Your task to perform on an android device: show emergency info Image 0: 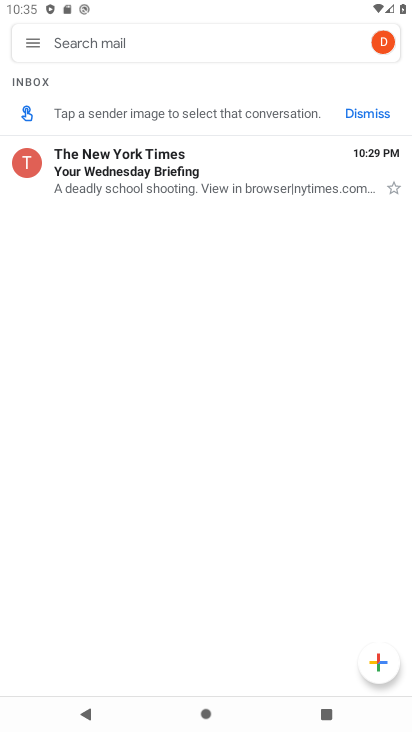
Step 0: press home button
Your task to perform on an android device: show emergency info Image 1: 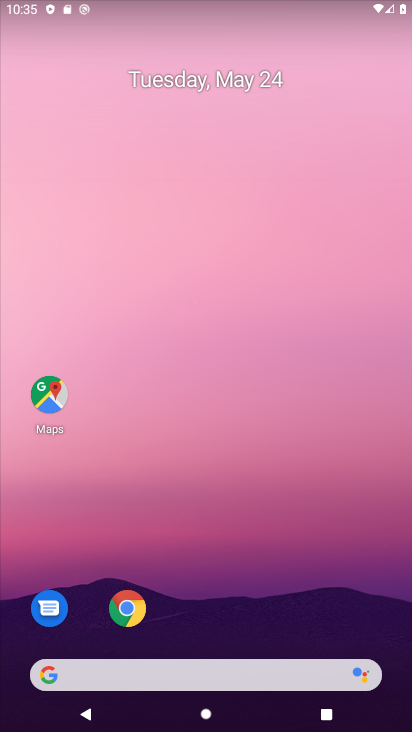
Step 1: drag from (373, 625) to (350, 24)
Your task to perform on an android device: show emergency info Image 2: 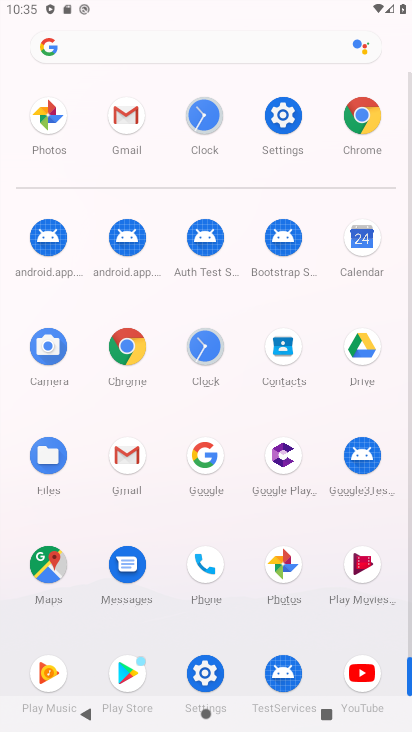
Step 2: click (204, 676)
Your task to perform on an android device: show emergency info Image 3: 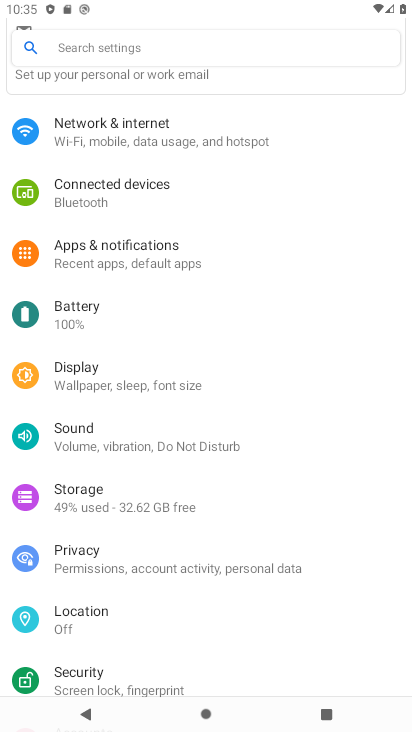
Step 3: drag from (369, 657) to (334, 247)
Your task to perform on an android device: show emergency info Image 4: 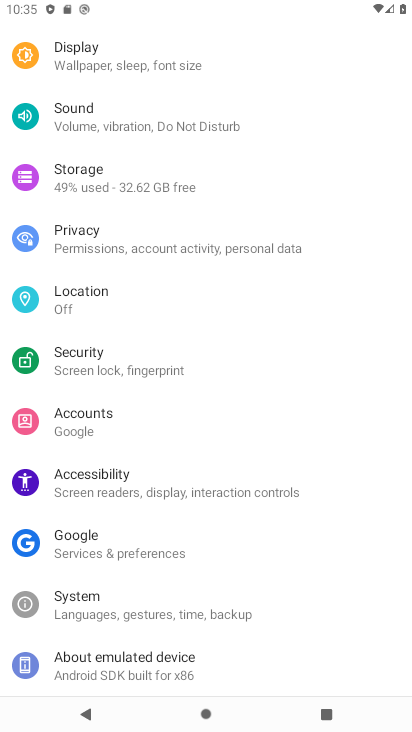
Step 4: click (99, 657)
Your task to perform on an android device: show emergency info Image 5: 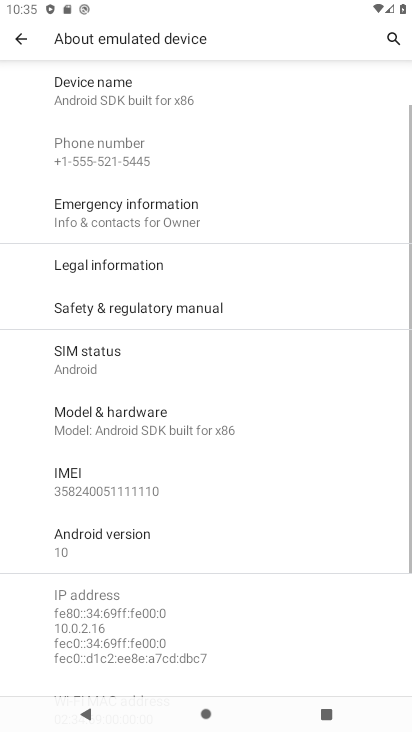
Step 5: click (112, 209)
Your task to perform on an android device: show emergency info Image 6: 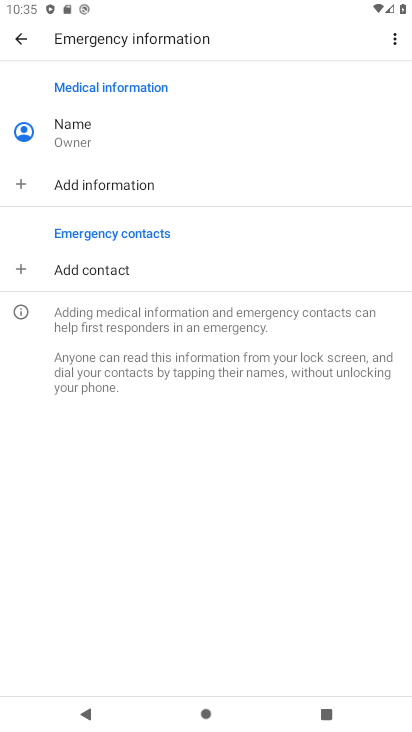
Step 6: task complete